Your task to perform on an android device: turn off wifi Image 0: 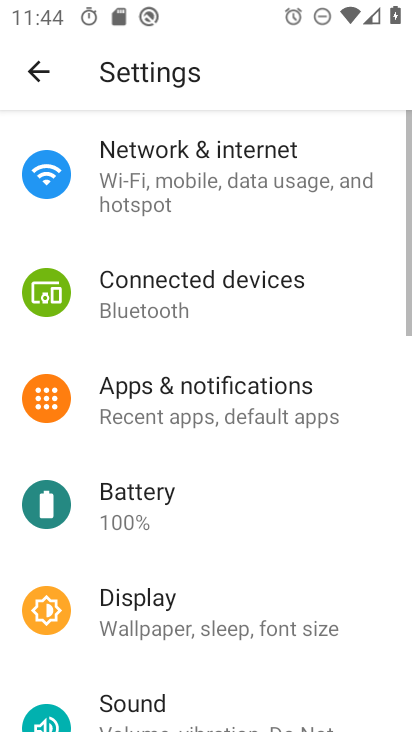
Step 0: click (249, 177)
Your task to perform on an android device: turn off wifi Image 1: 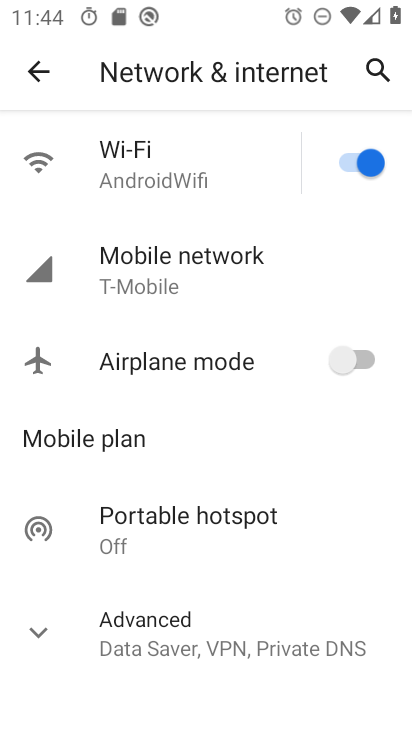
Step 1: click (374, 172)
Your task to perform on an android device: turn off wifi Image 2: 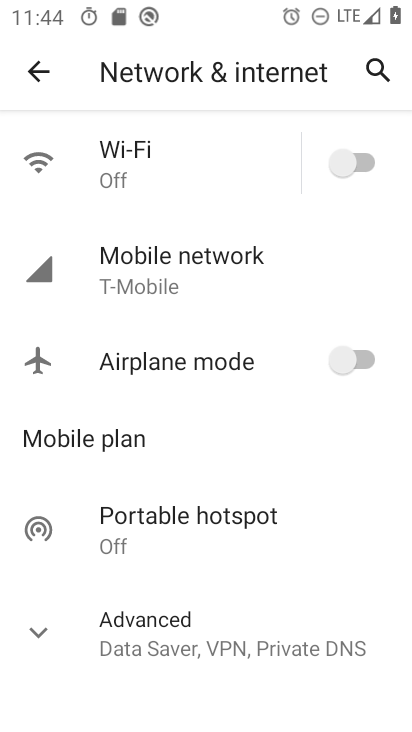
Step 2: task complete